Your task to perform on an android device: Open Reddit.com Image 0: 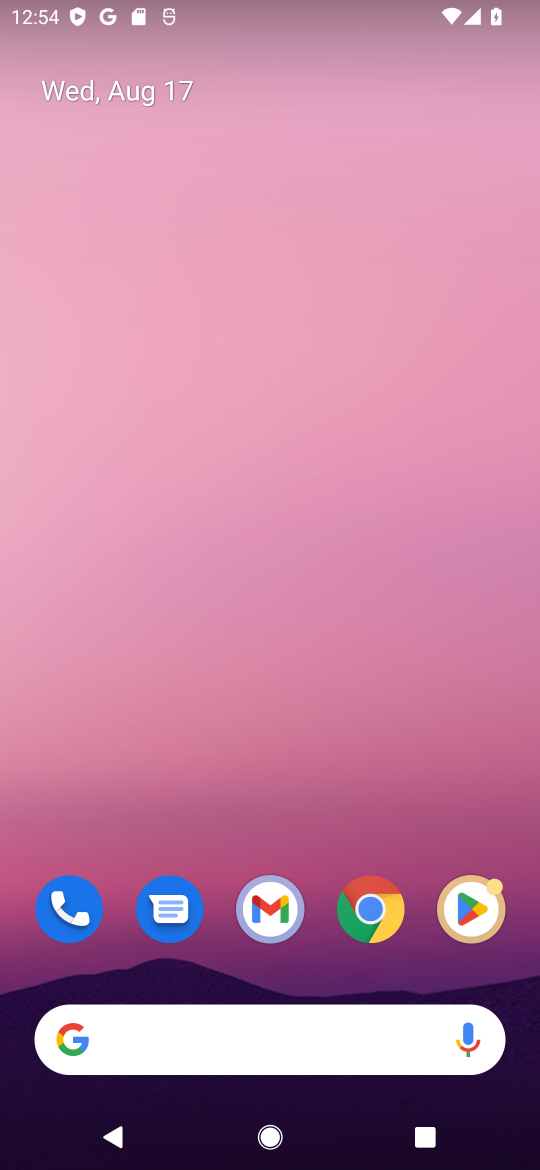
Step 0: click (373, 915)
Your task to perform on an android device: Open Reddit.com Image 1: 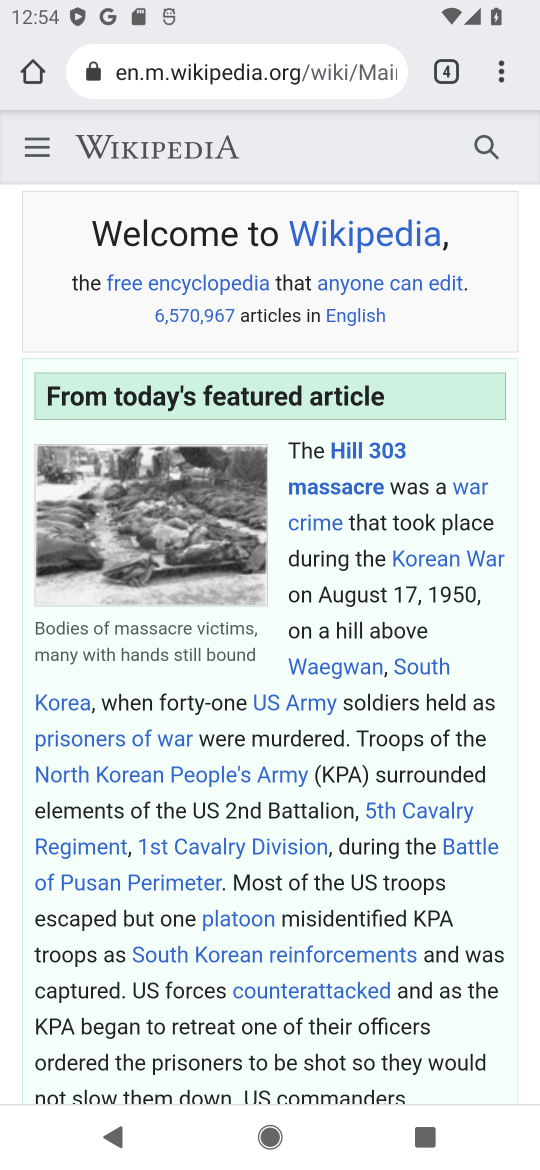
Step 1: click (495, 75)
Your task to perform on an android device: Open Reddit.com Image 2: 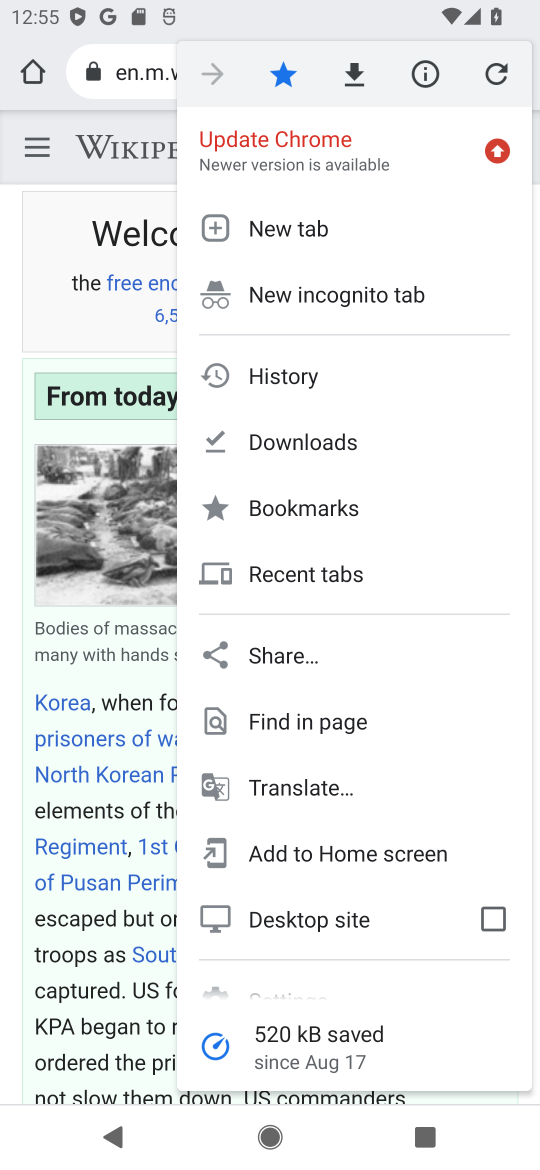
Step 2: click (275, 223)
Your task to perform on an android device: Open Reddit.com Image 3: 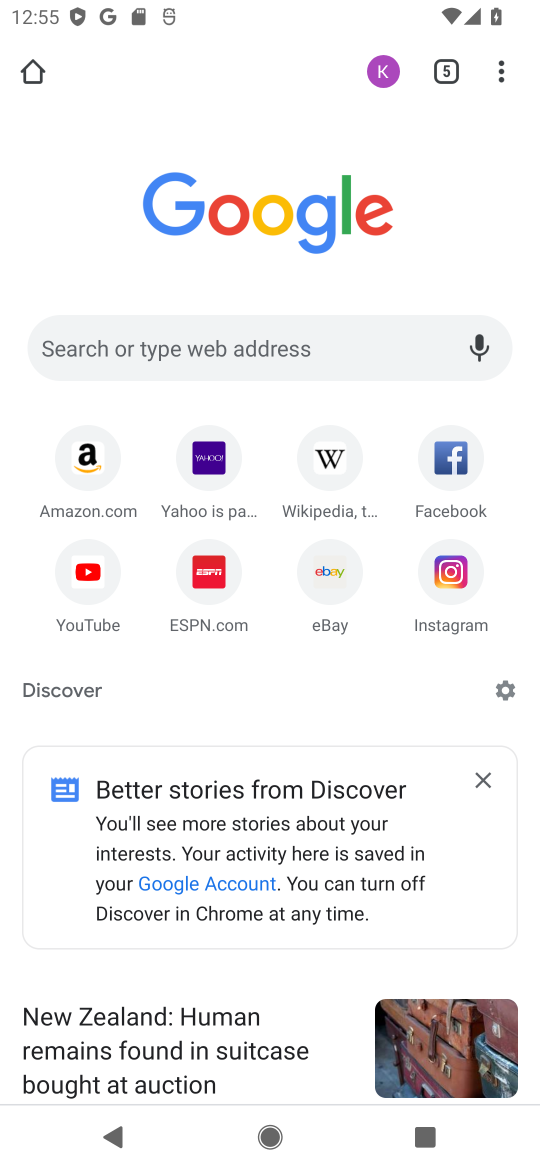
Step 3: click (188, 334)
Your task to perform on an android device: Open Reddit.com Image 4: 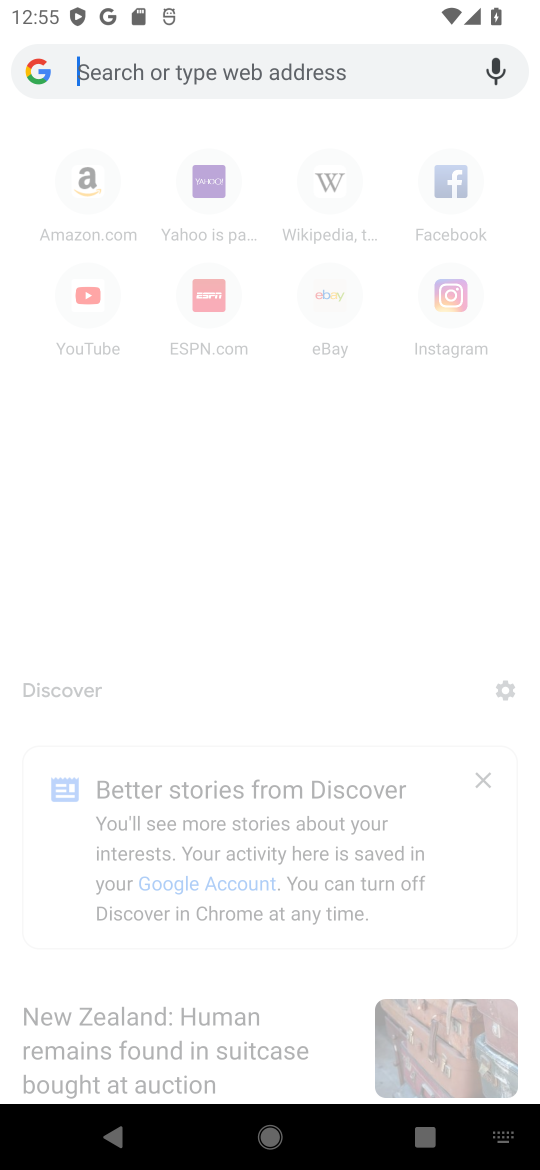
Step 4: type "reddit.com"
Your task to perform on an android device: Open Reddit.com Image 5: 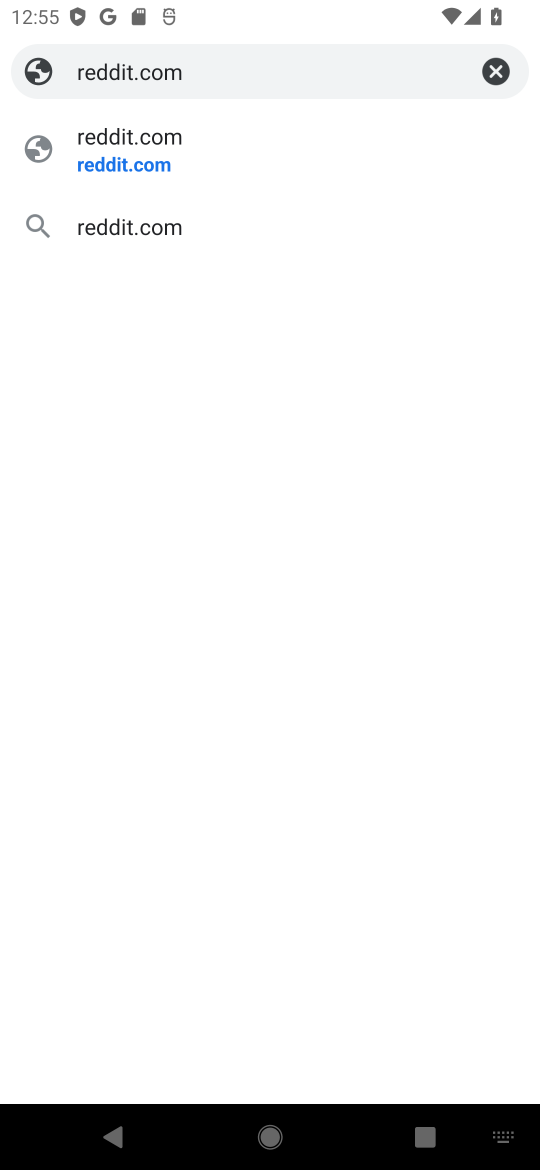
Step 5: click (119, 144)
Your task to perform on an android device: Open Reddit.com Image 6: 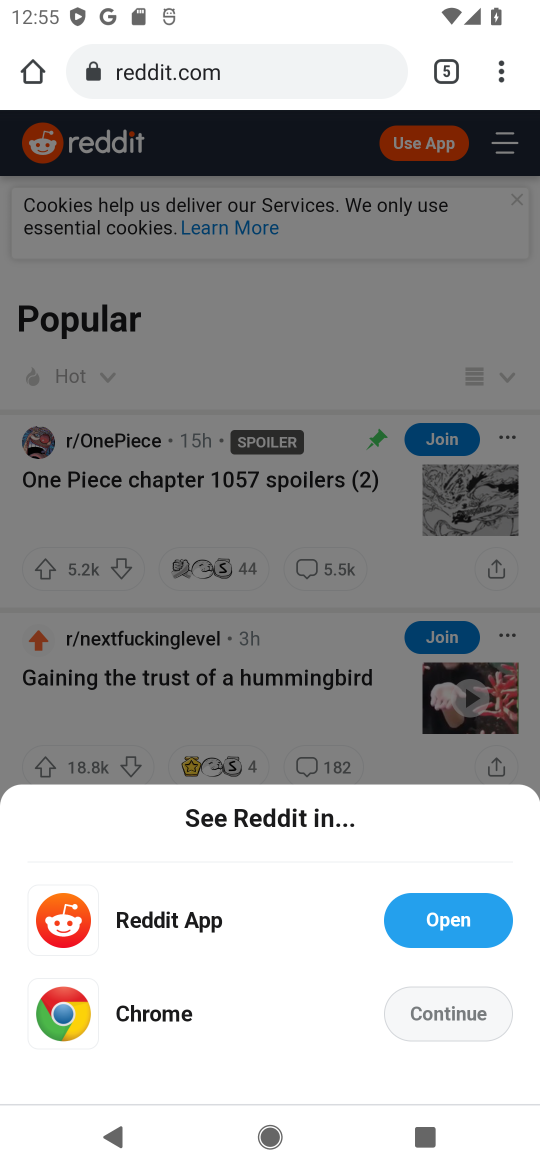
Step 6: click (443, 1016)
Your task to perform on an android device: Open Reddit.com Image 7: 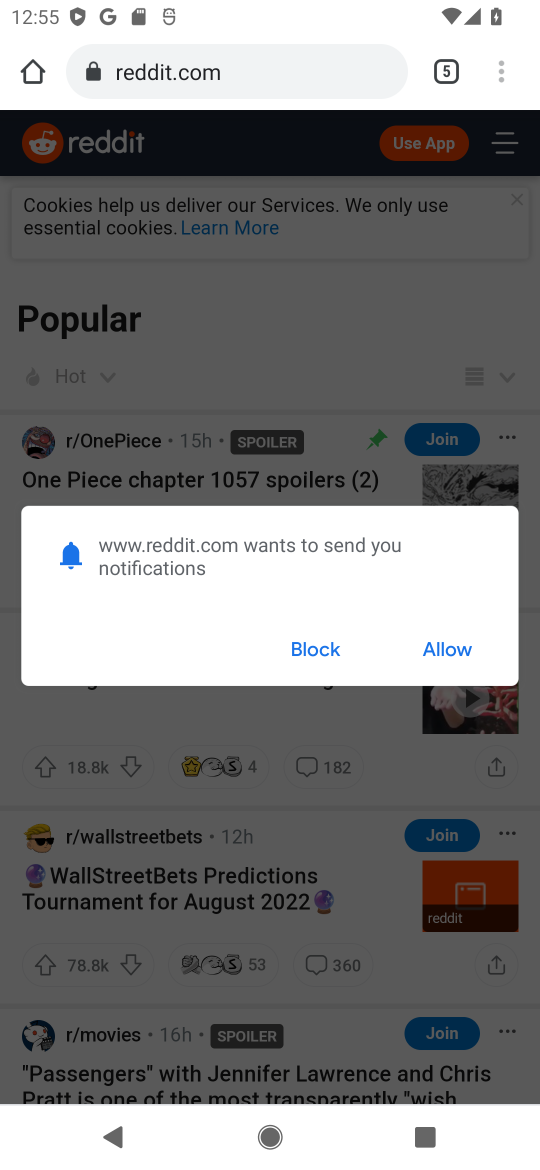
Step 7: click (458, 647)
Your task to perform on an android device: Open Reddit.com Image 8: 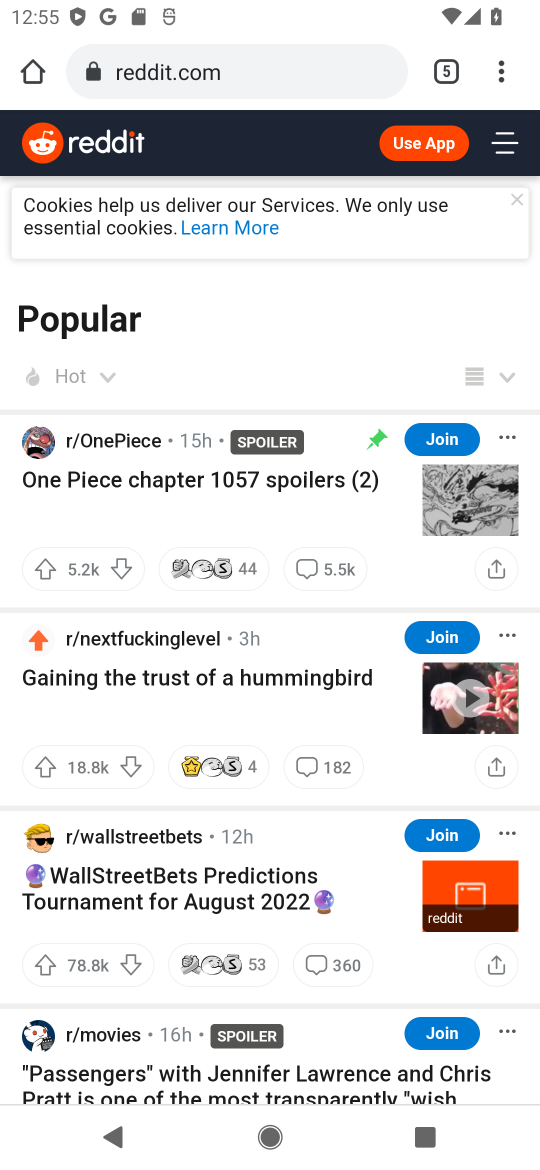
Step 8: task complete